Your task to perform on an android device: Set an alarm for 6am Image 0: 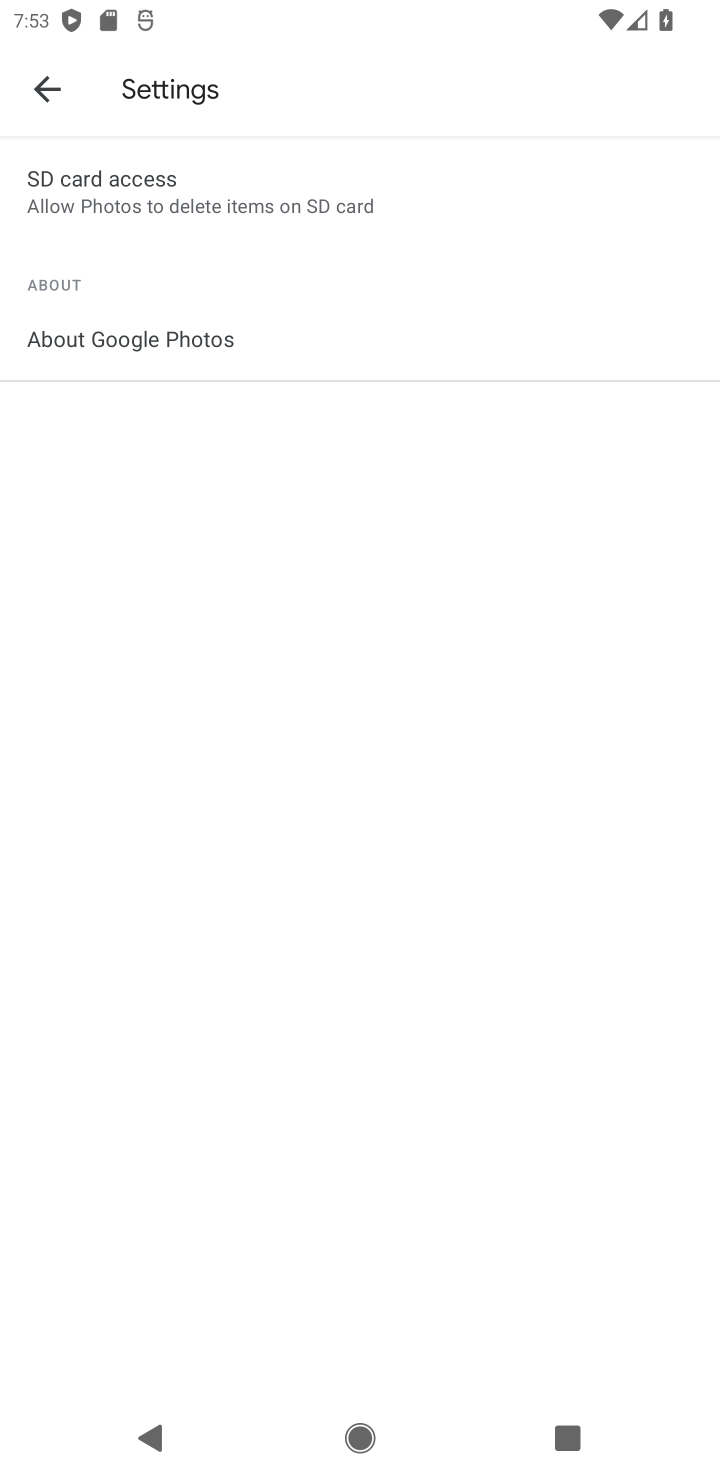
Step 0: press home button
Your task to perform on an android device: Set an alarm for 6am Image 1: 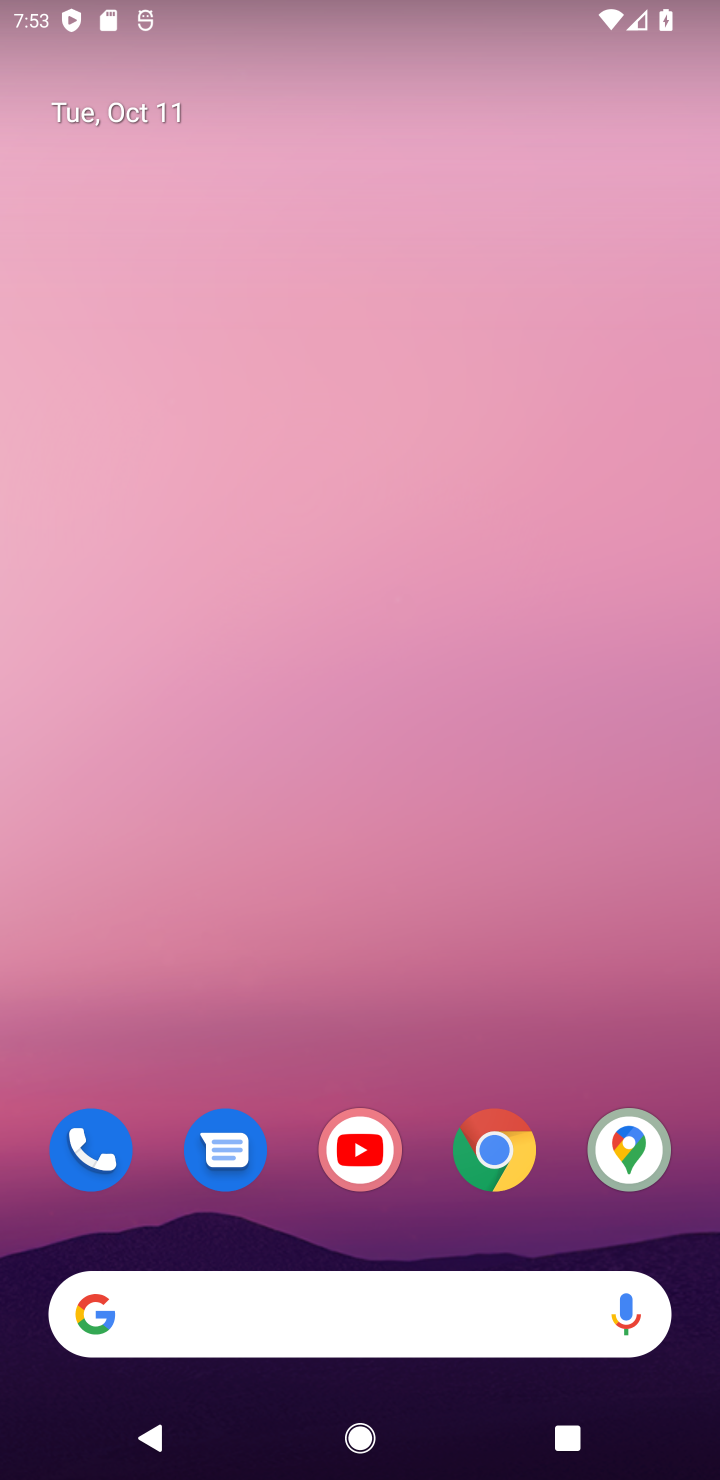
Step 1: drag from (351, 1084) to (379, 44)
Your task to perform on an android device: Set an alarm for 6am Image 2: 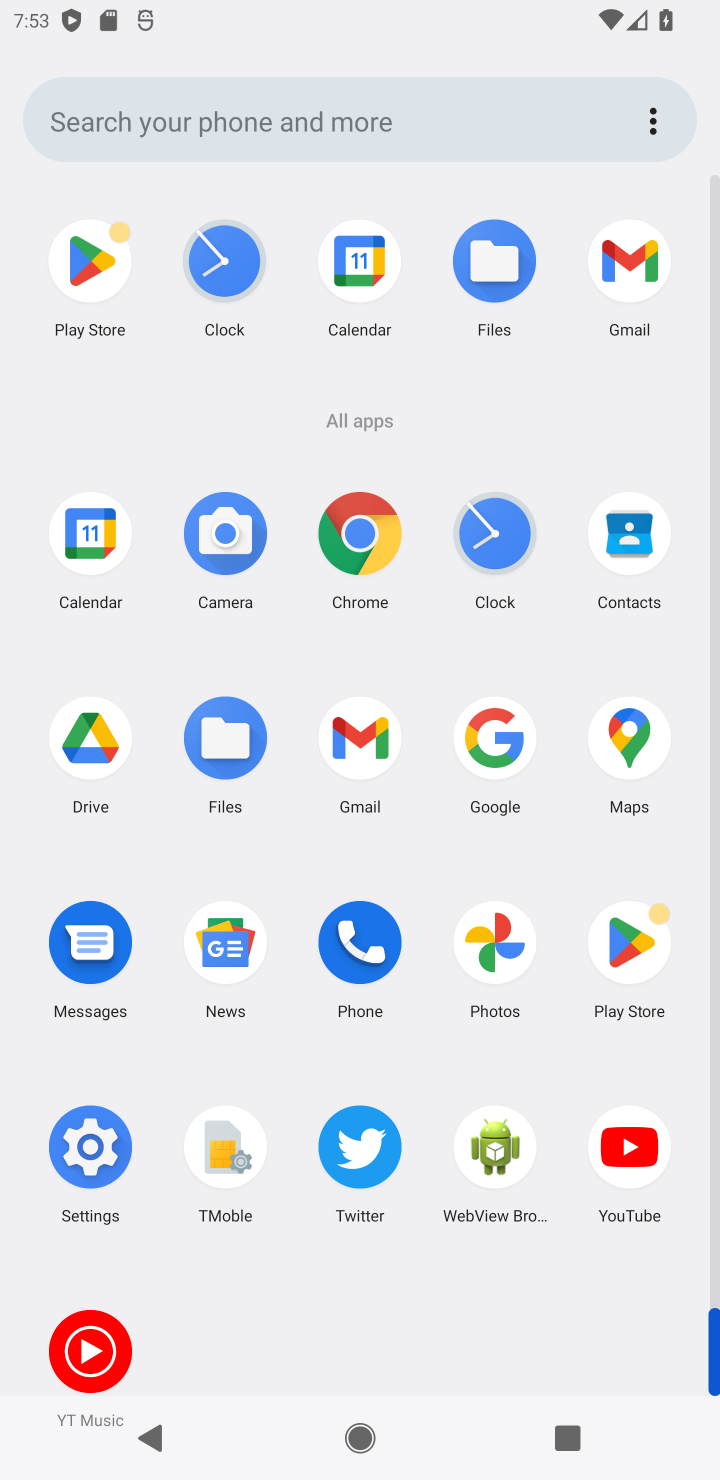
Step 2: click (222, 278)
Your task to perform on an android device: Set an alarm for 6am Image 3: 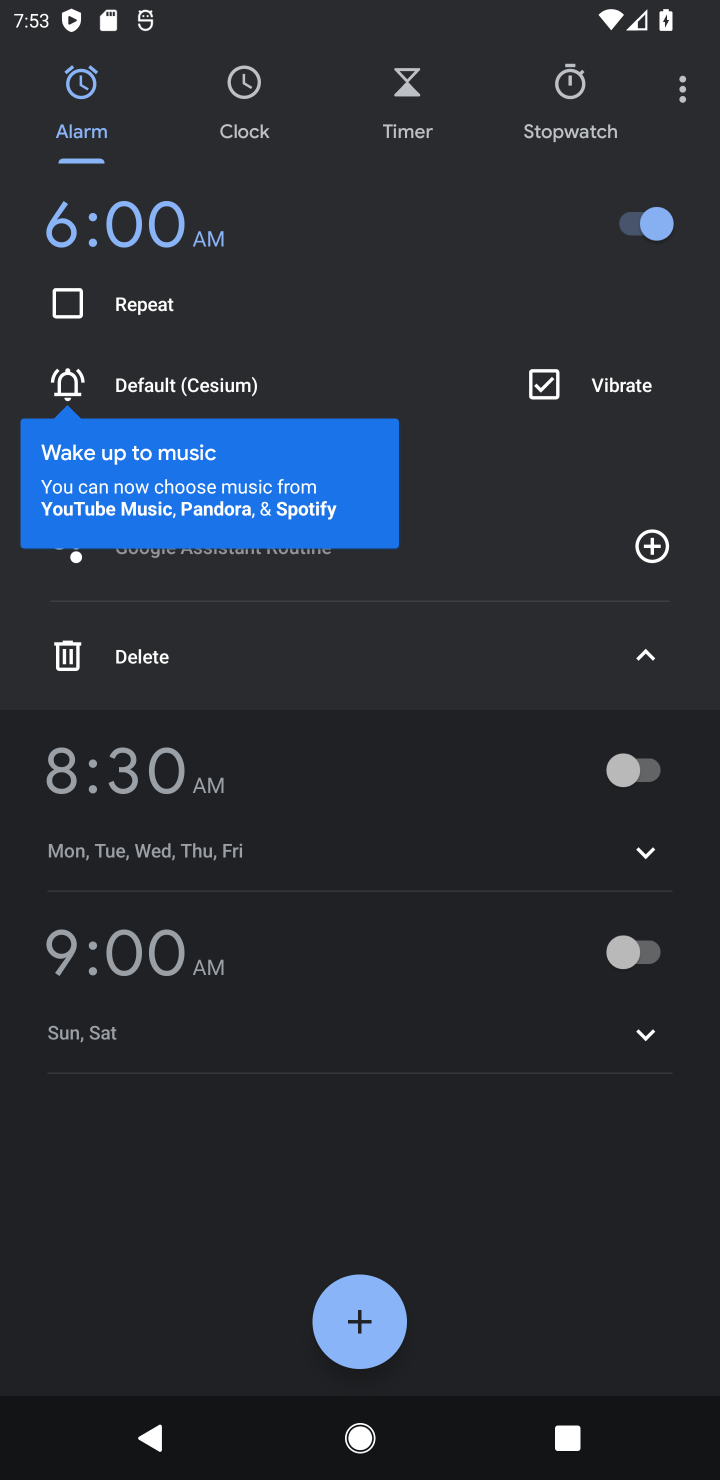
Step 3: click (355, 1329)
Your task to perform on an android device: Set an alarm for 6am Image 4: 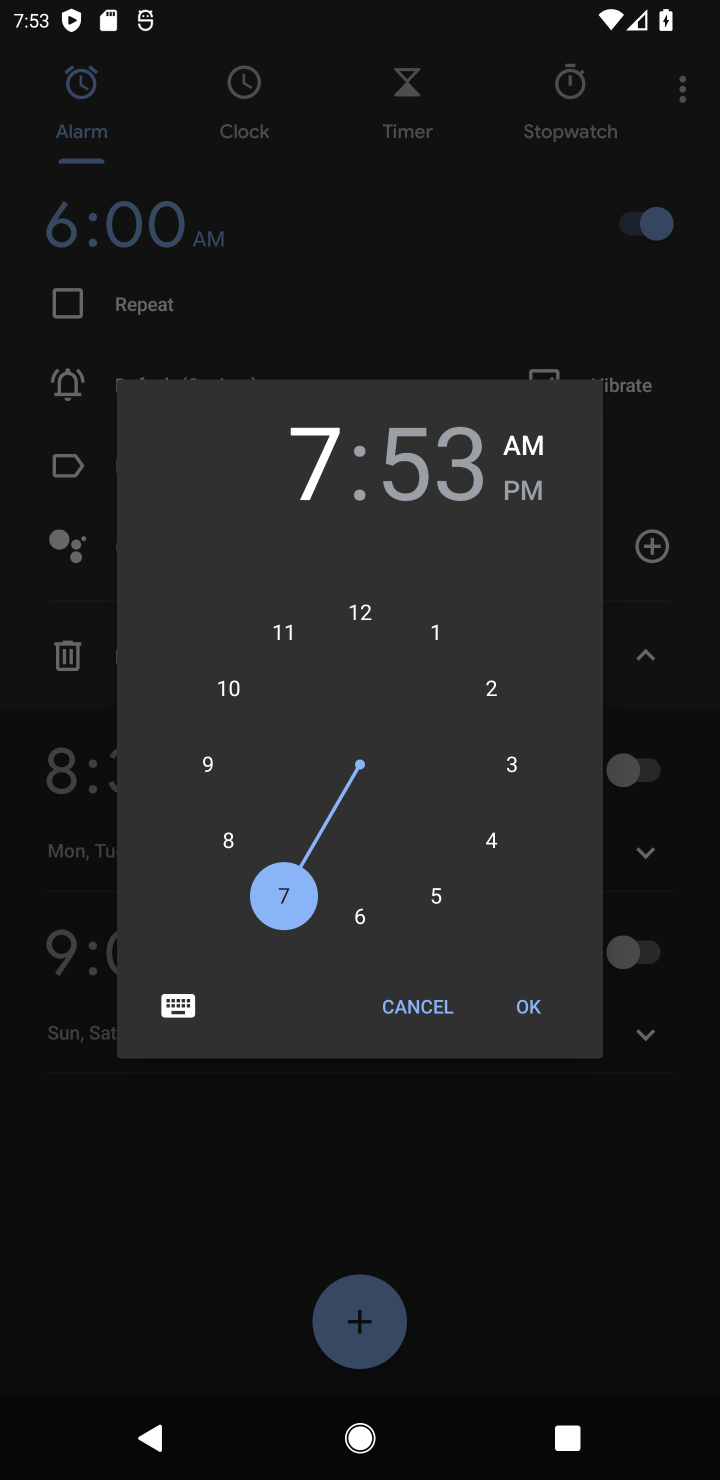
Step 4: click (364, 912)
Your task to perform on an android device: Set an alarm for 6am Image 5: 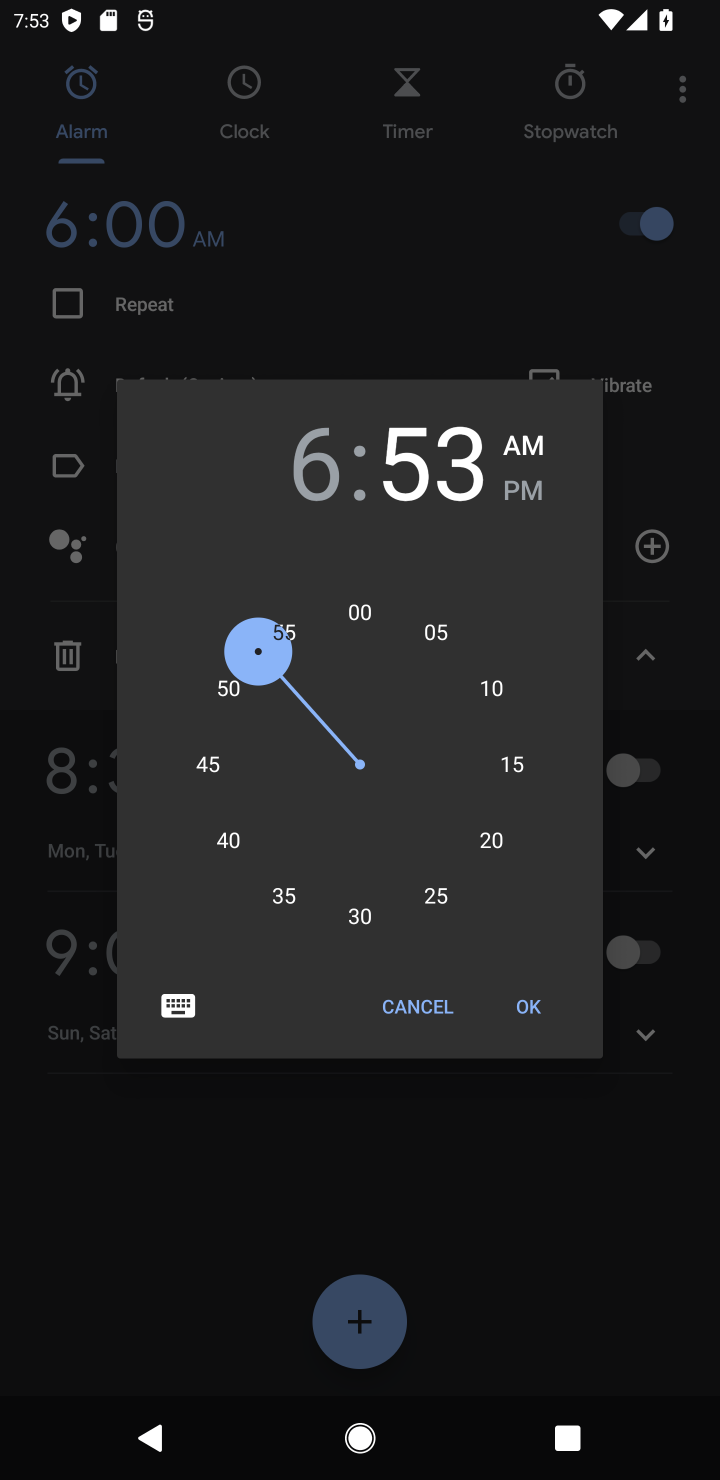
Step 5: click (371, 607)
Your task to perform on an android device: Set an alarm for 6am Image 6: 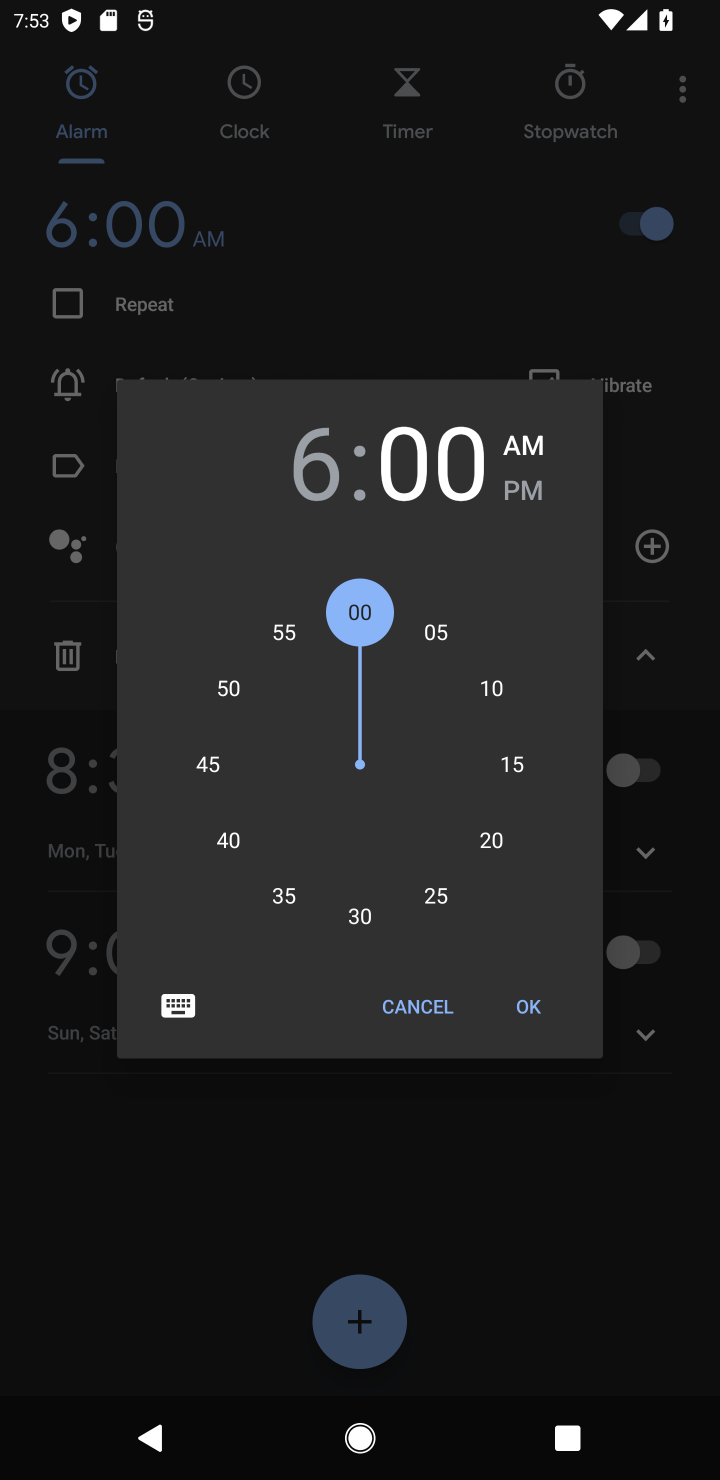
Step 6: click (541, 446)
Your task to perform on an android device: Set an alarm for 6am Image 7: 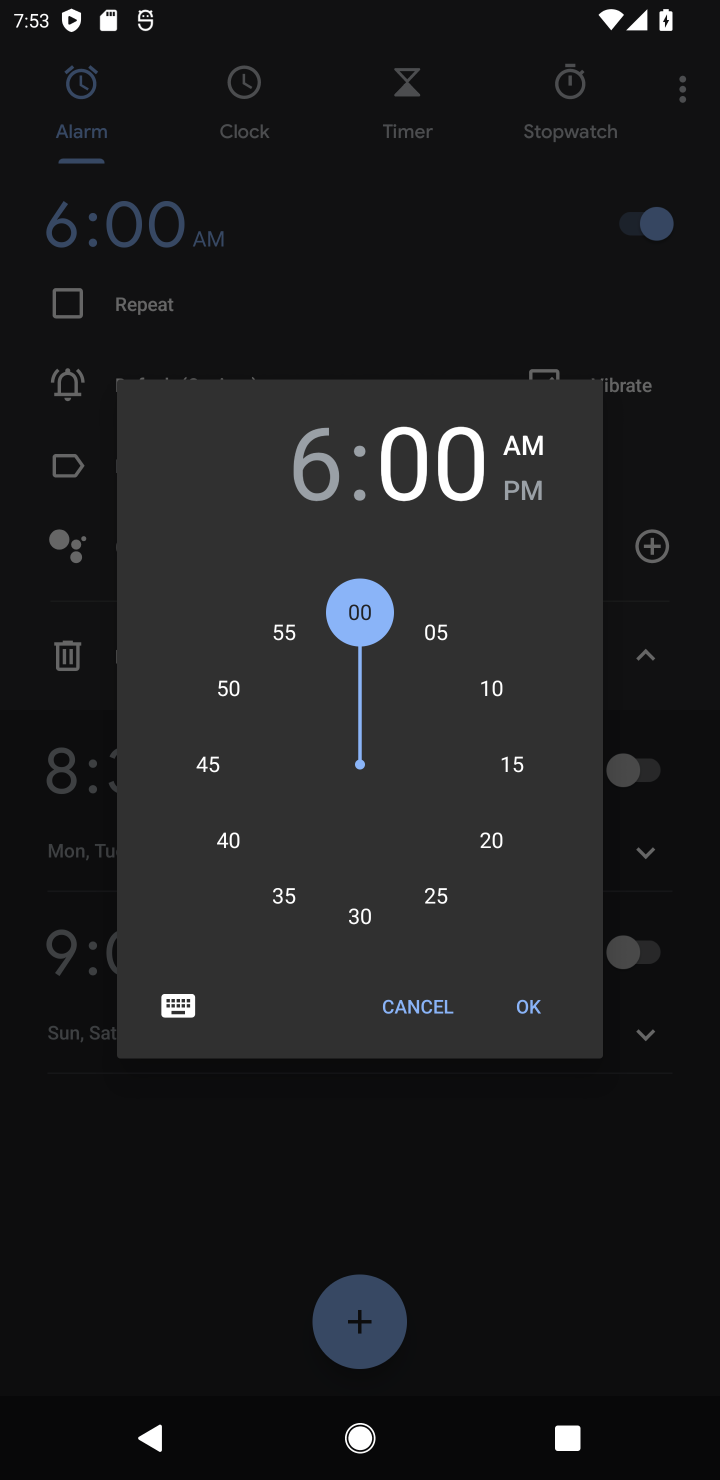
Step 7: click (540, 1014)
Your task to perform on an android device: Set an alarm for 6am Image 8: 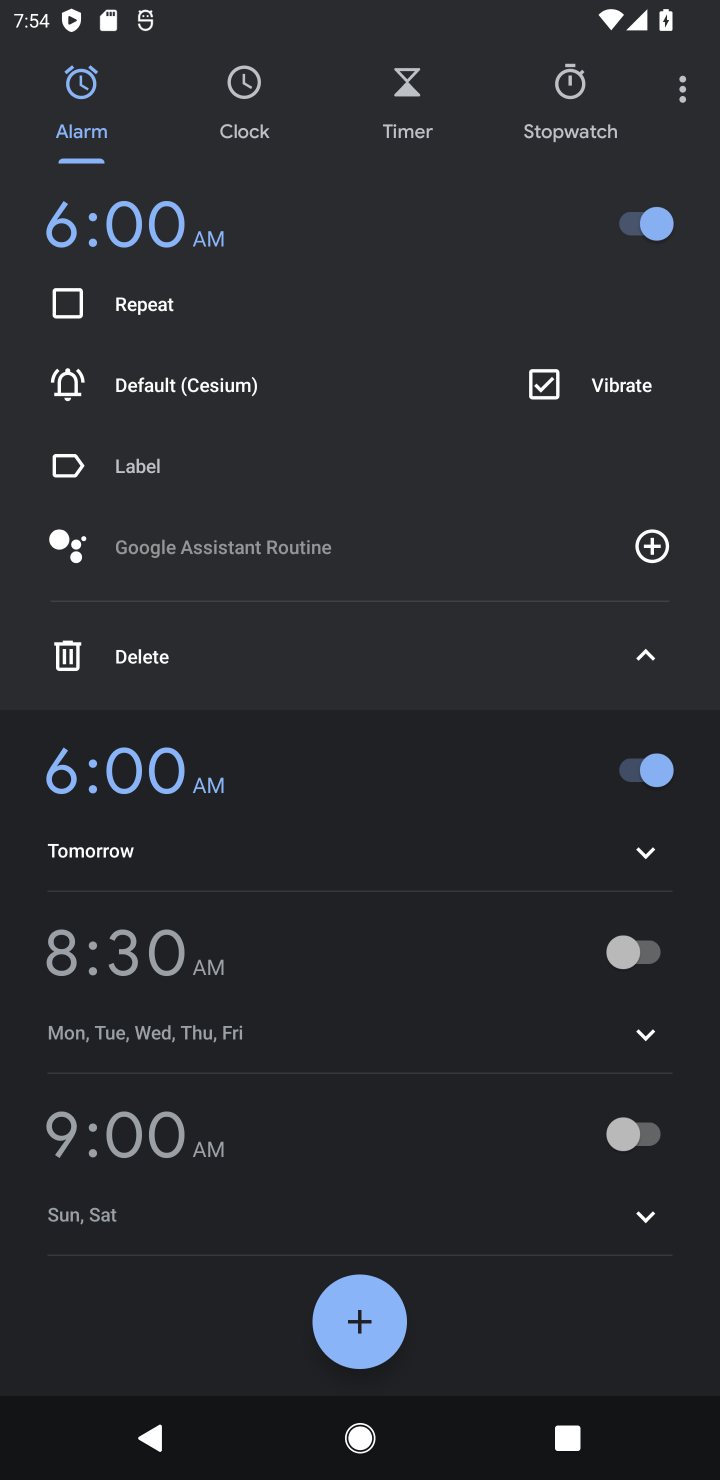
Step 8: task complete